Your task to perform on an android device: search for starred emails in the gmail app Image 0: 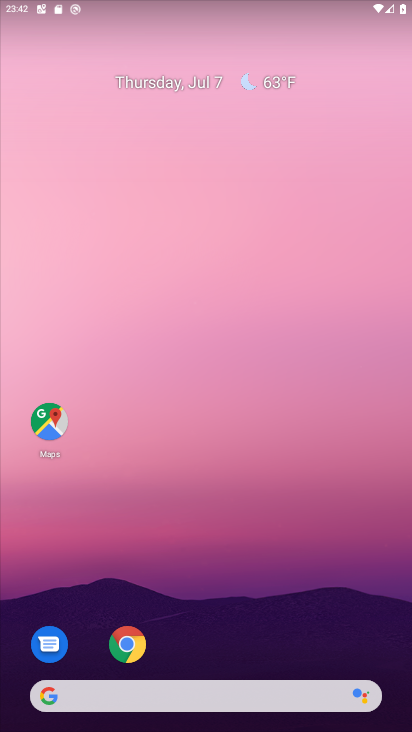
Step 0: drag from (212, 727) to (200, 582)
Your task to perform on an android device: search for starred emails in the gmail app Image 1: 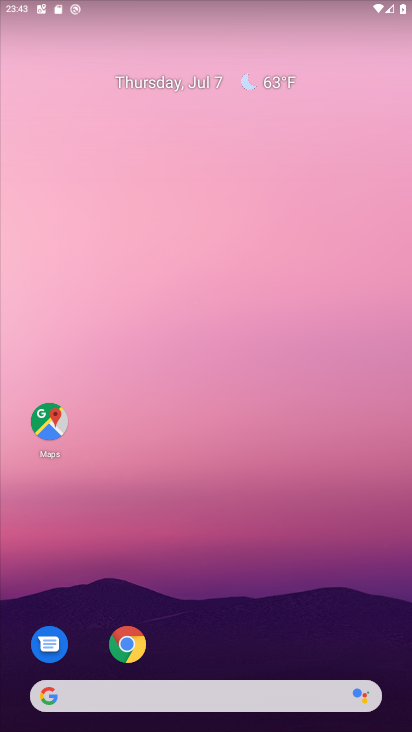
Step 1: drag from (190, 190) to (190, 78)
Your task to perform on an android device: search for starred emails in the gmail app Image 2: 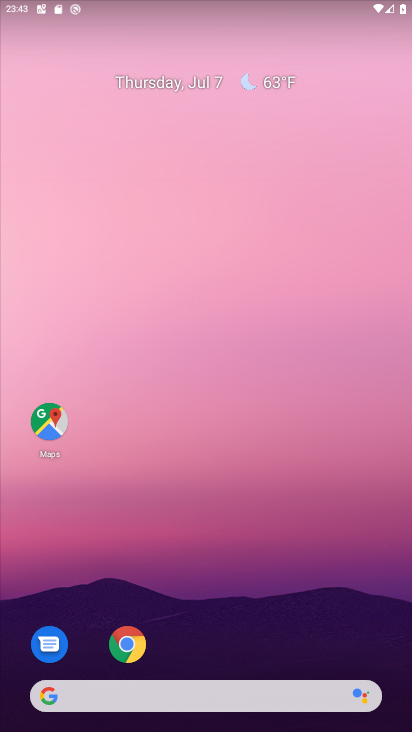
Step 2: click (205, 728)
Your task to perform on an android device: search for starred emails in the gmail app Image 3: 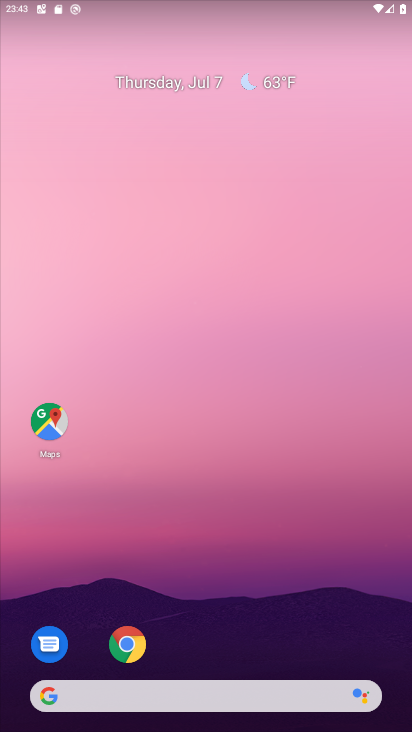
Step 3: click (211, 316)
Your task to perform on an android device: search for starred emails in the gmail app Image 4: 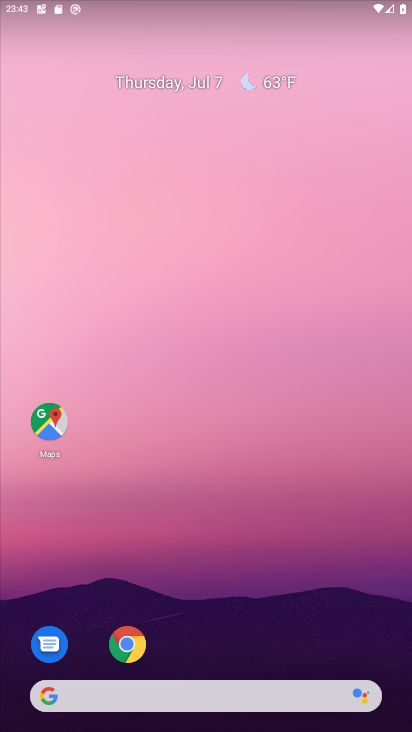
Step 4: drag from (234, 721) to (224, 631)
Your task to perform on an android device: search for starred emails in the gmail app Image 5: 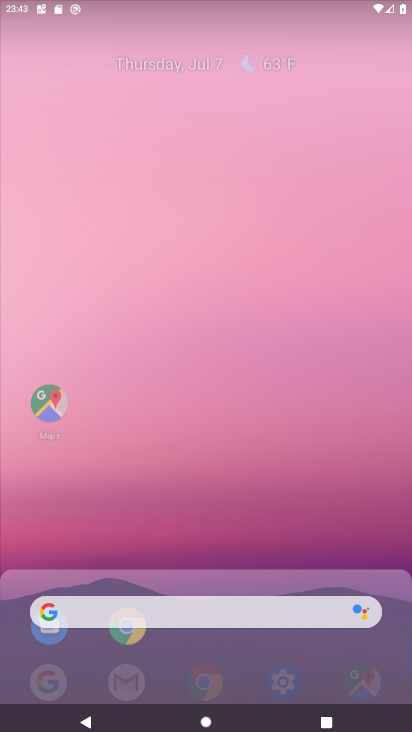
Step 5: click (219, 193)
Your task to perform on an android device: search for starred emails in the gmail app Image 6: 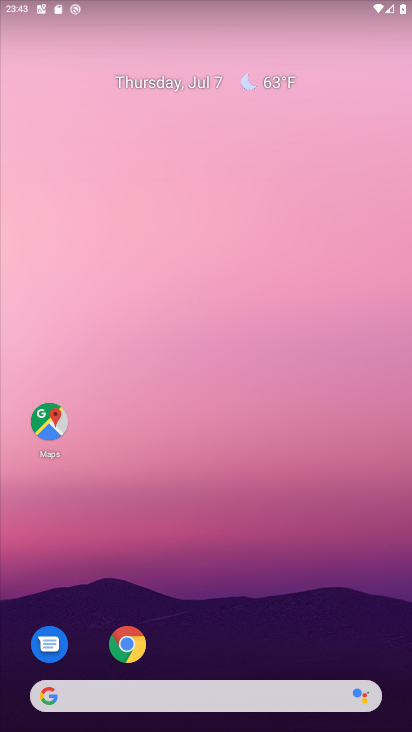
Step 6: click (235, 720)
Your task to perform on an android device: search for starred emails in the gmail app Image 7: 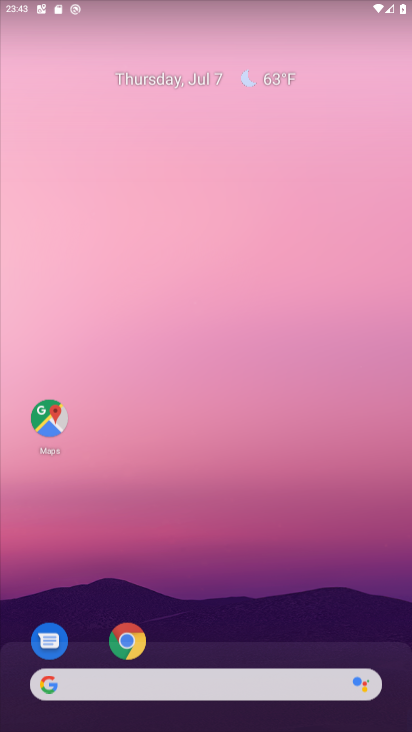
Step 7: drag from (219, 256) to (202, 33)
Your task to perform on an android device: search for starred emails in the gmail app Image 8: 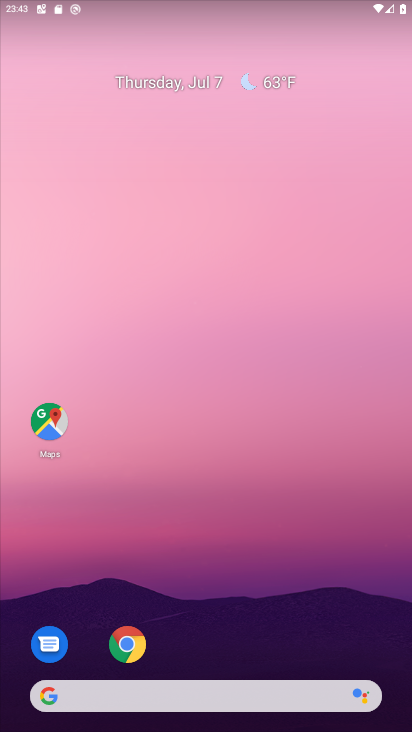
Step 8: drag from (384, 723) to (372, 635)
Your task to perform on an android device: search for starred emails in the gmail app Image 9: 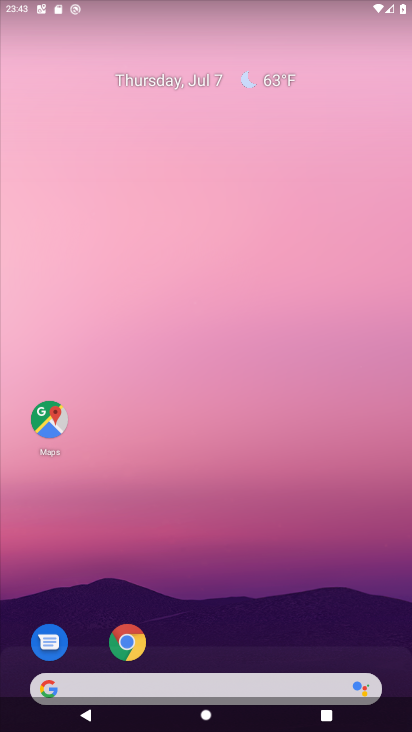
Step 9: click (316, 167)
Your task to perform on an android device: search for starred emails in the gmail app Image 10: 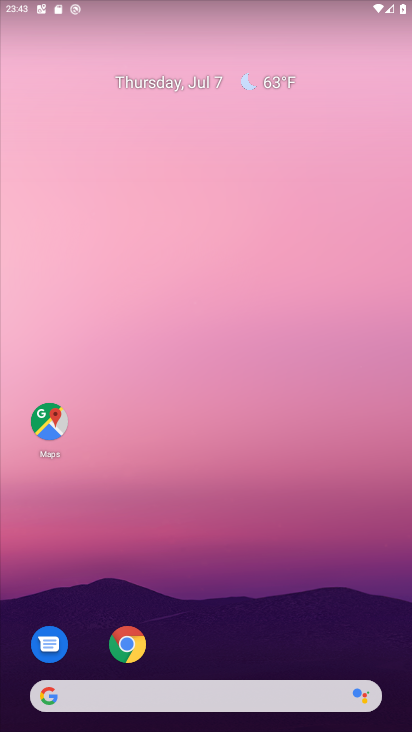
Step 10: drag from (303, 727) to (306, 574)
Your task to perform on an android device: search for starred emails in the gmail app Image 11: 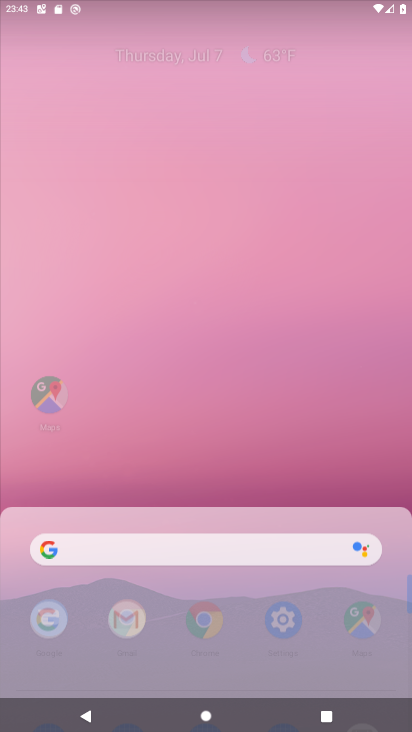
Step 11: drag from (302, 206) to (286, 43)
Your task to perform on an android device: search for starred emails in the gmail app Image 12: 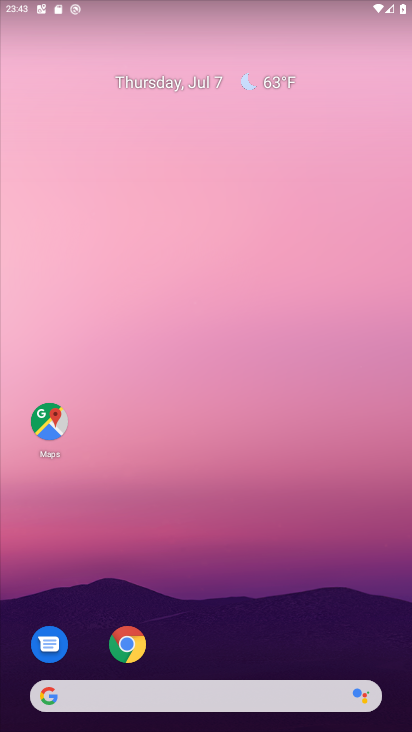
Step 12: click (347, 727)
Your task to perform on an android device: search for starred emails in the gmail app Image 13: 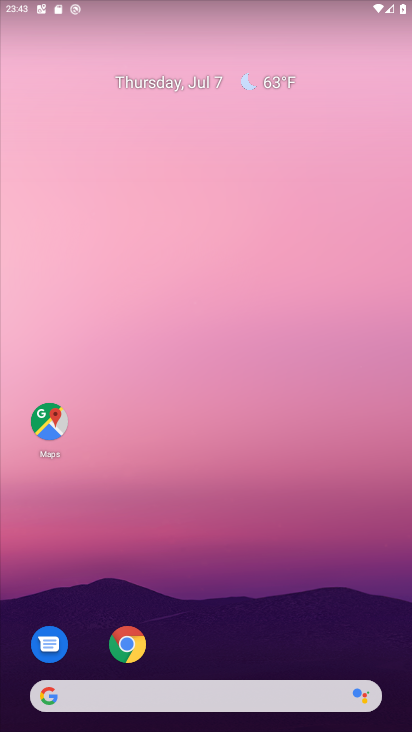
Step 13: drag from (323, 178) to (322, 143)
Your task to perform on an android device: search for starred emails in the gmail app Image 14: 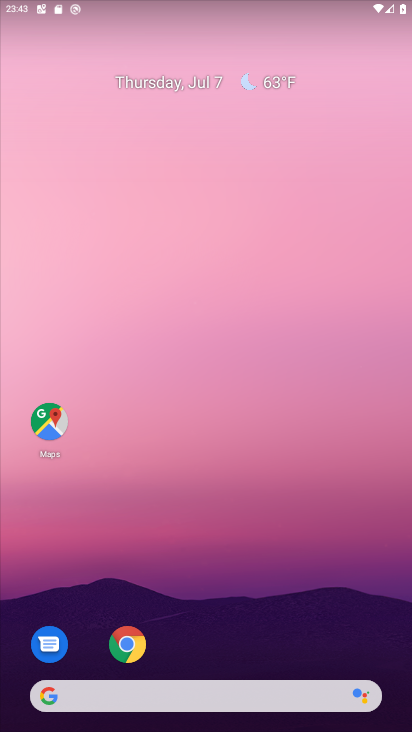
Step 14: drag from (214, 724) to (217, 103)
Your task to perform on an android device: search for starred emails in the gmail app Image 15: 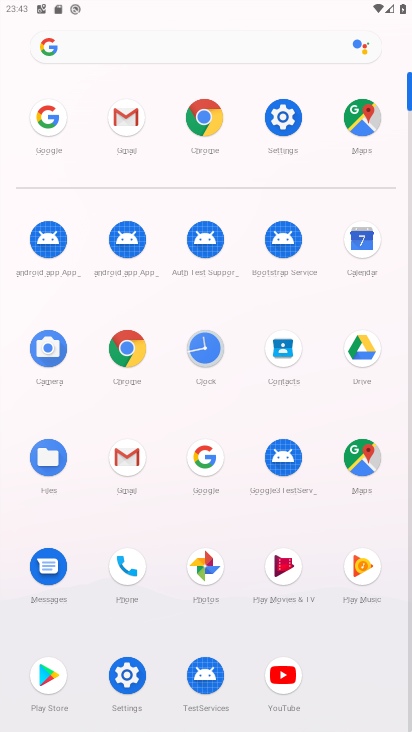
Step 15: click (120, 455)
Your task to perform on an android device: search for starred emails in the gmail app Image 16: 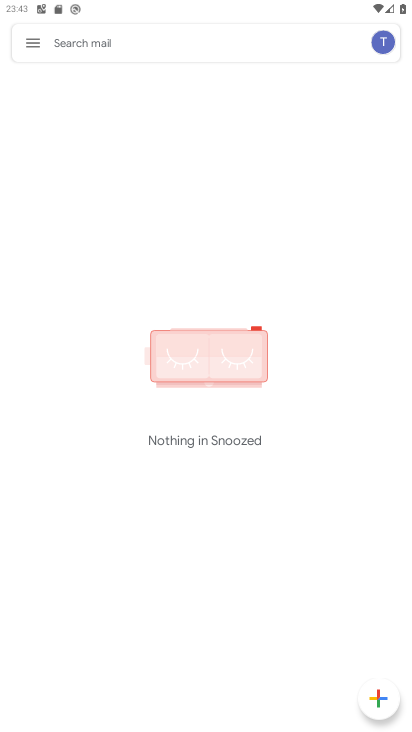
Step 16: click (42, 43)
Your task to perform on an android device: search for starred emails in the gmail app Image 17: 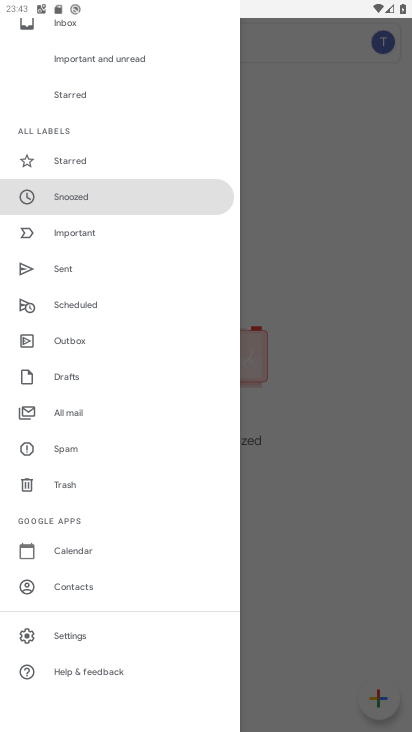
Step 17: click (74, 158)
Your task to perform on an android device: search for starred emails in the gmail app Image 18: 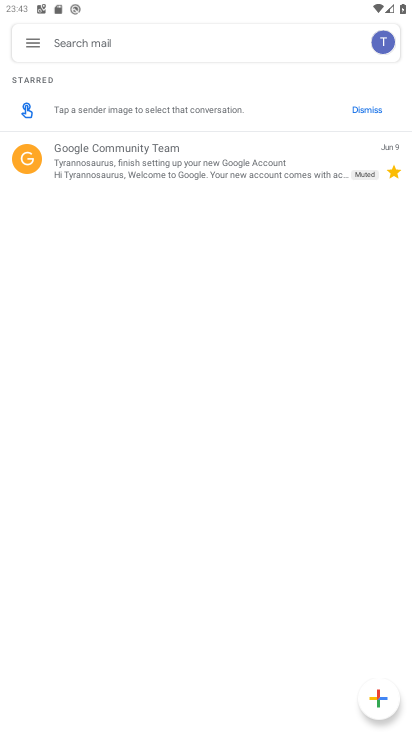
Step 18: task complete